Your task to perform on an android device: turn off notifications in google photos Image 0: 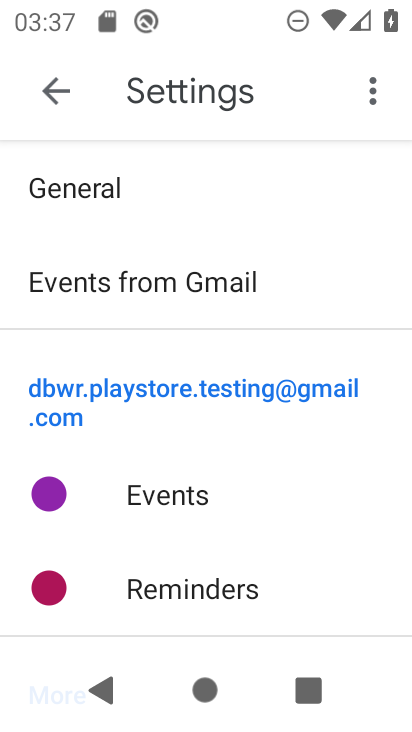
Step 0: press home button
Your task to perform on an android device: turn off notifications in google photos Image 1: 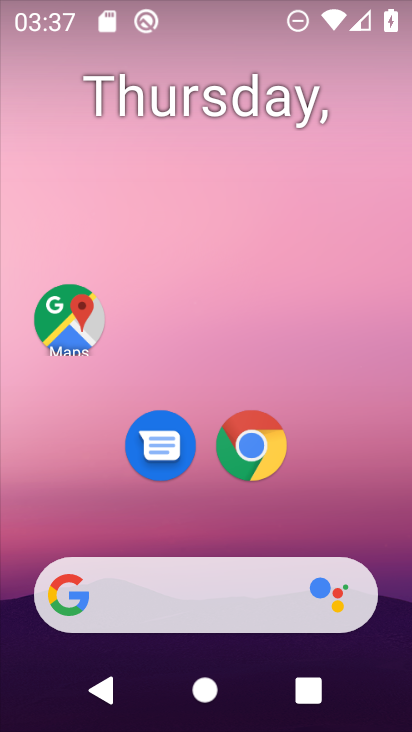
Step 1: drag from (362, 555) to (410, 617)
Your task to perform on an android device: turn off notifications in google photos Image 2: 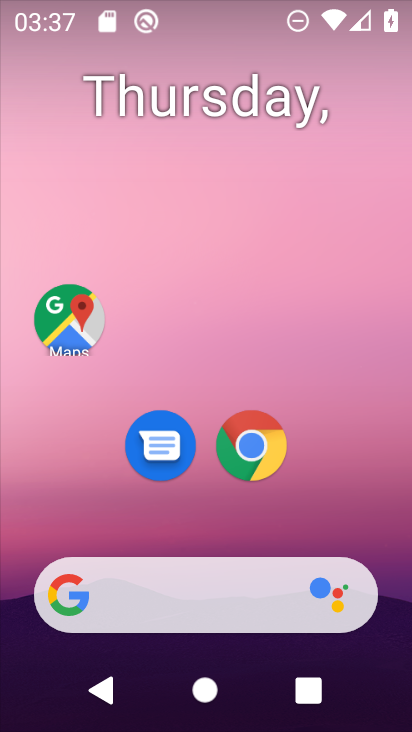
Step 2: drag from (366, 558) to (349, 13)
Your task to perform on an android device: turn off notifications in google photos Image 3: 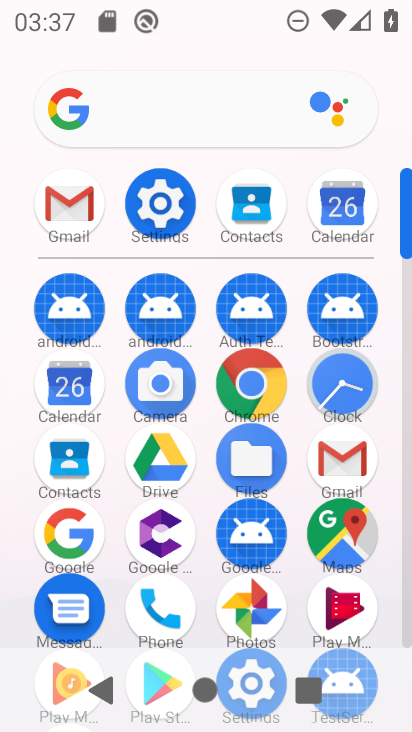
Step 3: click (234, 598)
Your task to perform on an android device: turn off notifications in google photos Image 4: 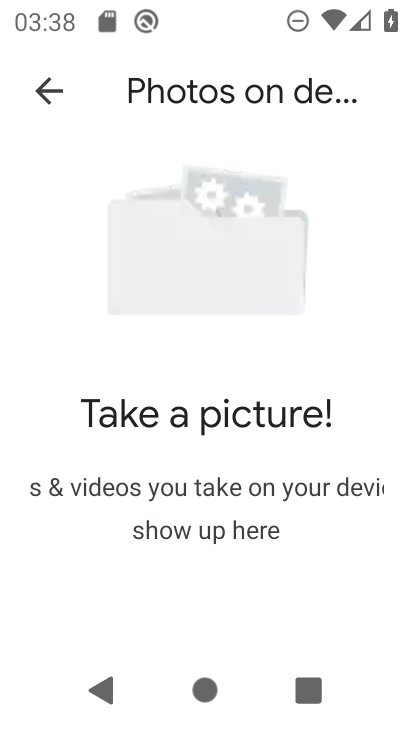
Step 4: click (51, 99)
Your task to perform on an android device: turn off notifications in google photos Image 5: 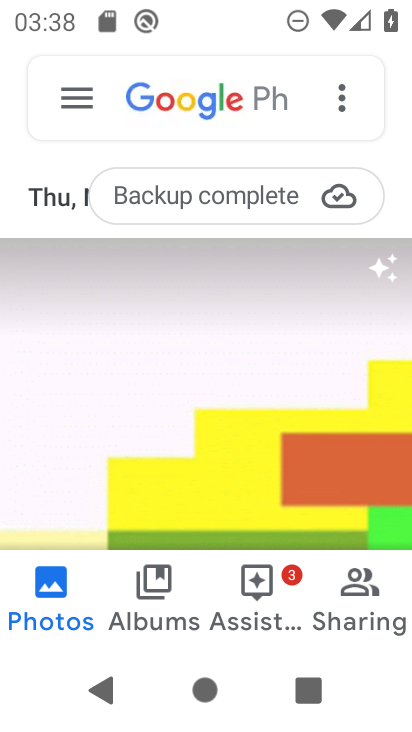
Step 5: click (89, 99)
Your task to perform on an android device: turn off notifications in google photos Image 6: 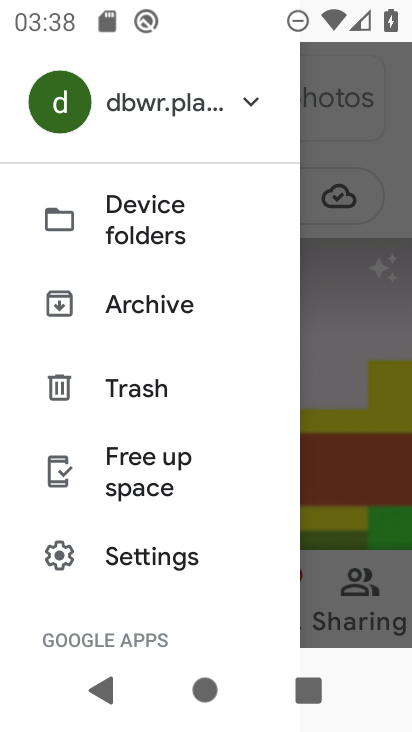
Step 6: click (162, 562)
Your task to perform on an android device: turn off notifications in google photos Image 7: 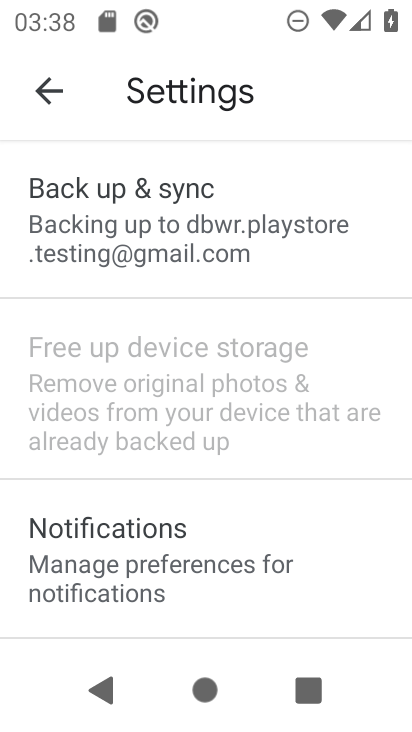
Step 7: click (155, 557)
Your task to perform on an android device: turn off notifications in google photos Image 8: 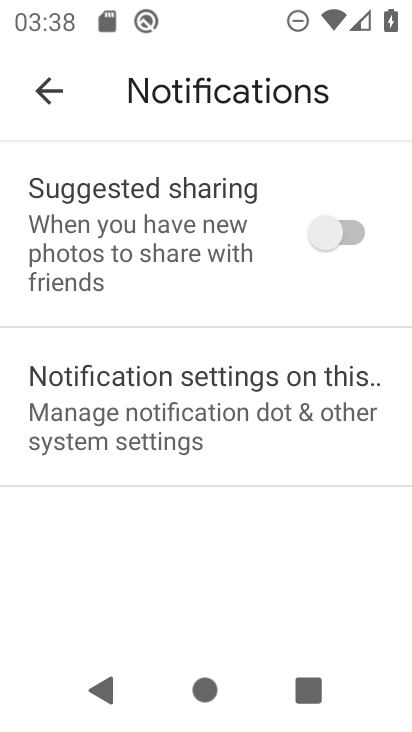
Step 8: click (155, 416)
Your task to perform on an android device: turn off notifications in google photos Image 9: 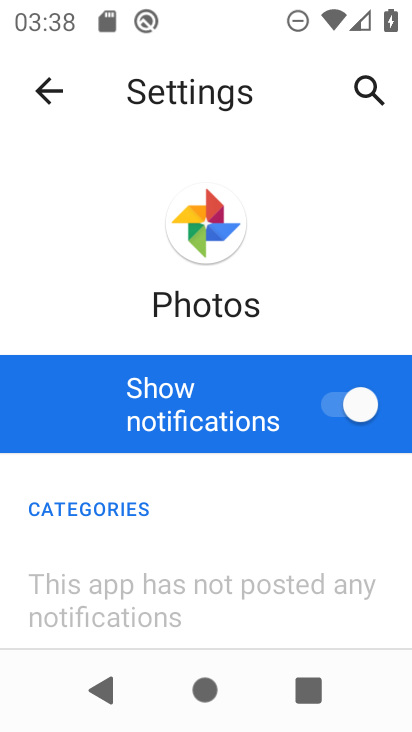
Step 9: click (356, 416)
Your task to perform on an android device: turn off notifications in google photos Image 10: 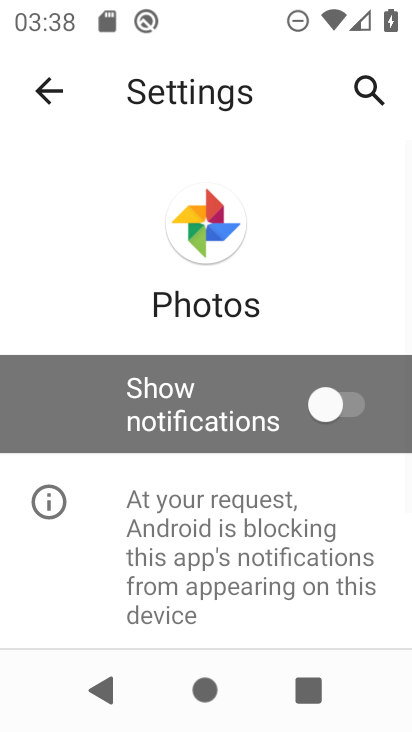
Step 10: task complete